Your task to perform on an android device: turn off notifications in google photos Image 0: 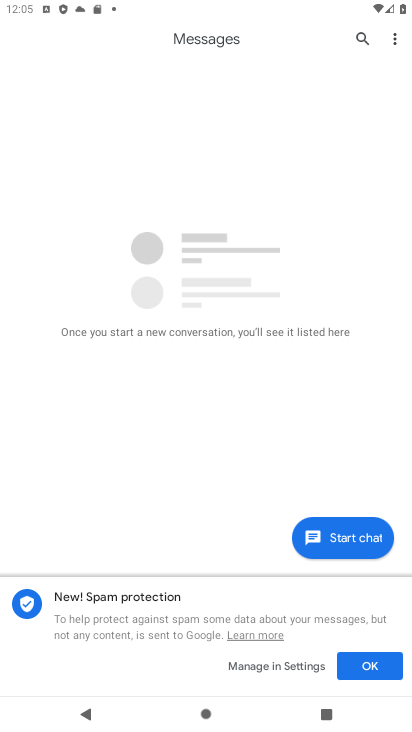
Step 0: press home button
Your task to perform on an android device: turn off notifications in google photos Image 1: 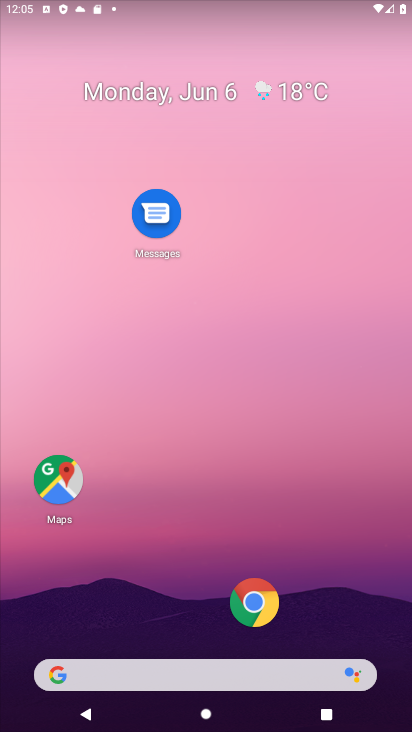
Step 1: drag from (172, 610) to (171, 150)
Your task to perform on an android device: turn off notifications in google photos Image 2: 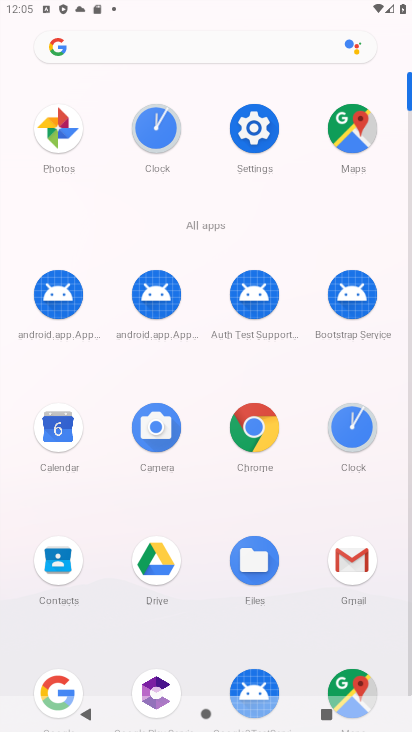
Step 2: click (410, 653)
Your task to perform on an android device: turn off notifications in google photos Image 3: 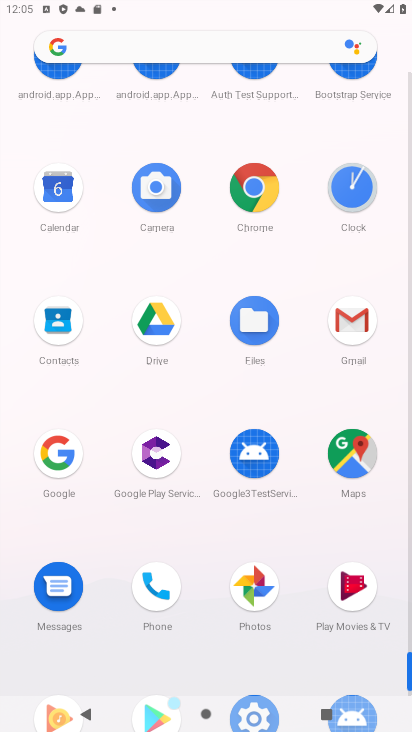
Step 3: click (257, 582)
Your task to perform on an android device: turn off notifications in google photos Image 4: 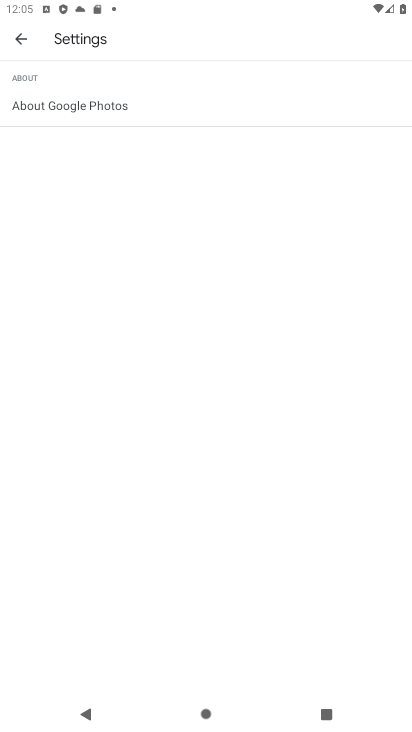
Step 4: task complete